Your task to perform on an android device: turn off priority inbox in the gmail app Image 0: 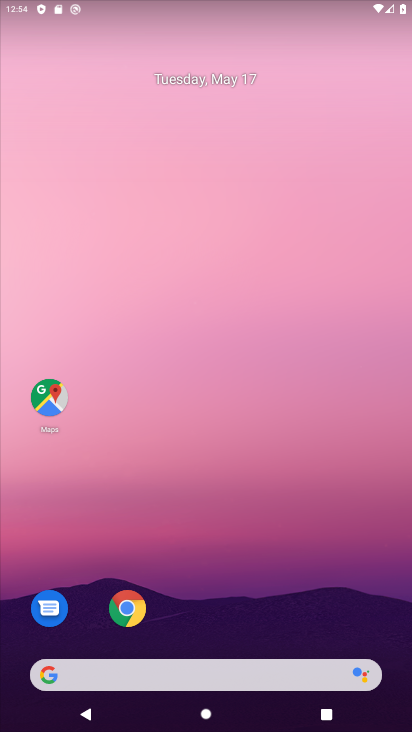
Step 0: drag from (180, 615) to (298, 5)
Your task to perform on an android device: turn off priority inbox in the gmail app Image 1: 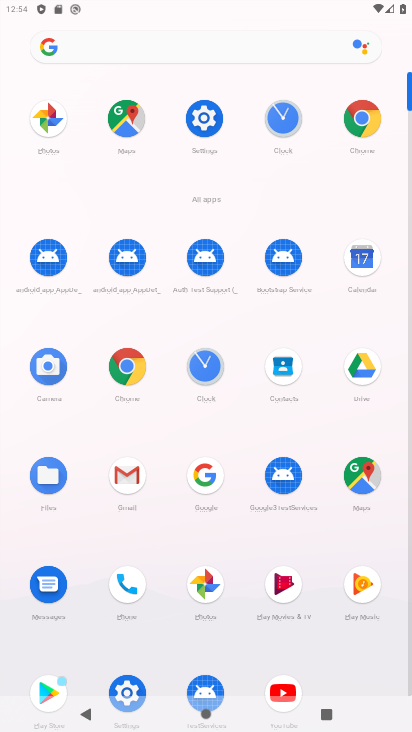
Step 1: click (125, 469)
Your task to perform on an android device: turn off priority inbox in the gmail app Image 2: 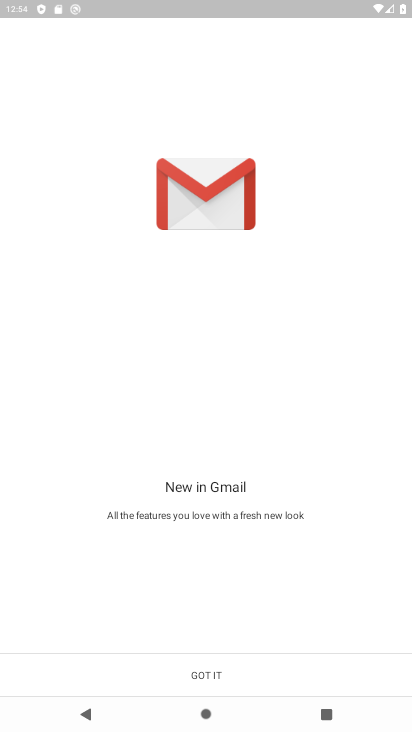
Step 2: click (226, 672)
Your task to perform on an android device: turn off priority inbox in the gmail app Image 3: 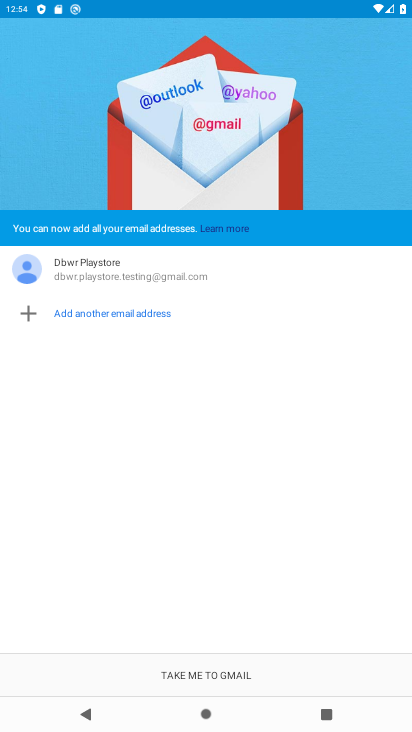
Step 3: click (226, 672)
Your task to perform on an android device: turn off priority inbox in the gmail app Image 4: 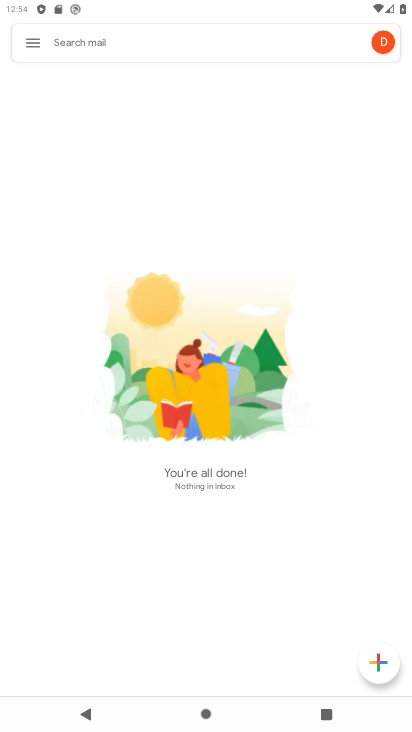
Step 4: click (32, 52)
Your task to perform on an android device: turn off priority inbox in the gmail app Image 5: 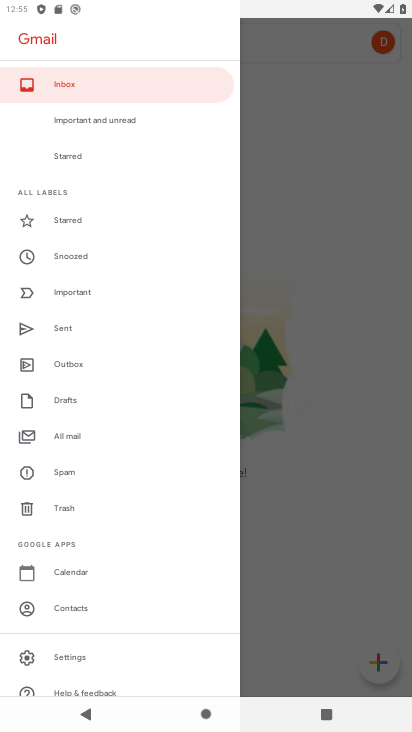
Step 5: click (91, 666)
Your task to perform on an android device: turn off priority inbox in the gmail app Image 6: 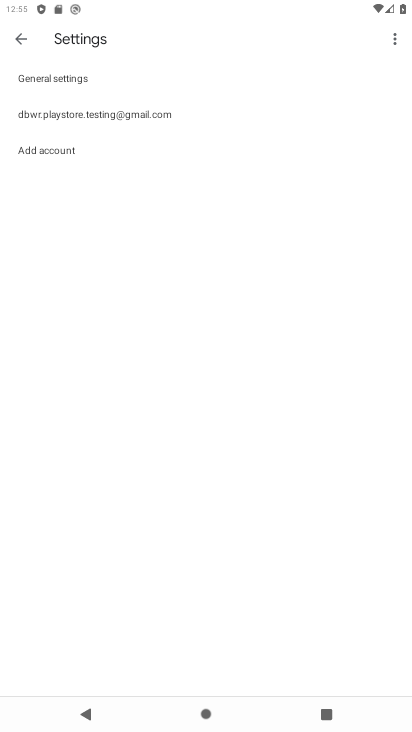
Step 6: click (169, 119)
Your task to perform on an android device: turn off priority inbox in the gmail app Image 7: 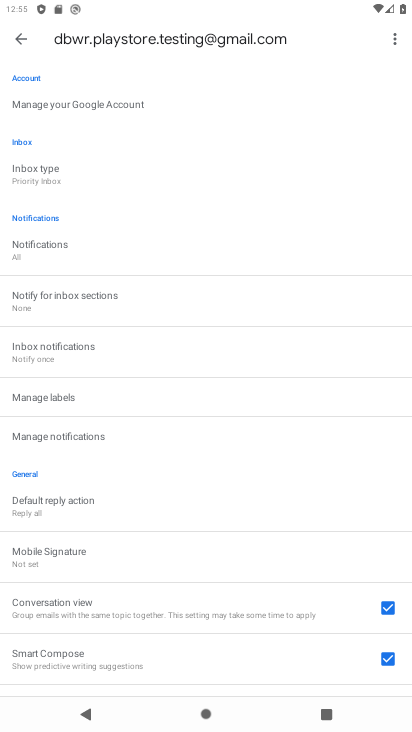
Step 7: click (109, 306)
Your task to perform on an android device: turn off priority inbox in the gmail app Image 8: 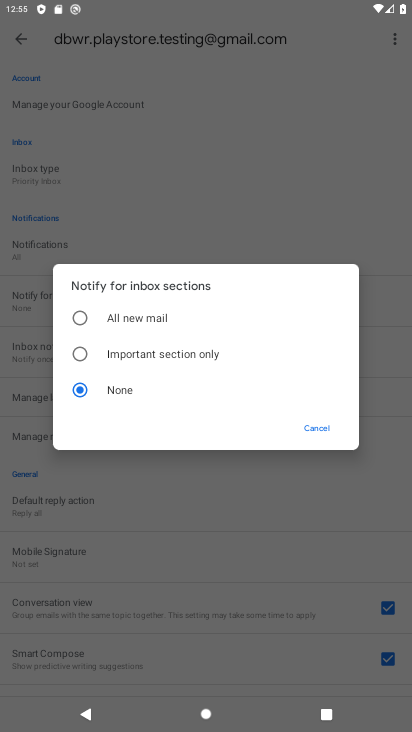
Step 8: click (319, 166)
Your task to perform on an android device: turn off priority inbox in the gmail app Image 9: 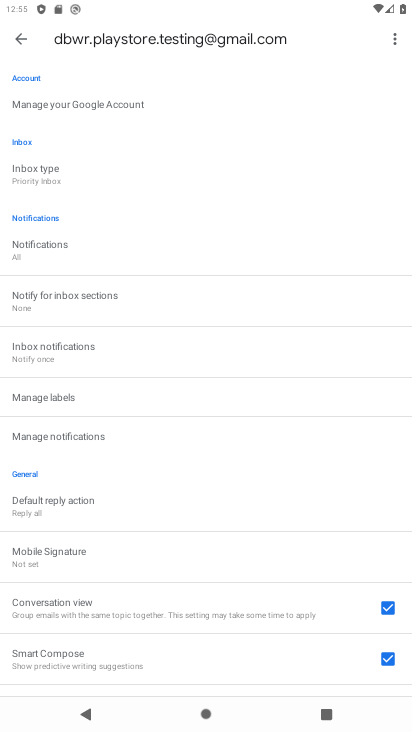
Step 9: click (148, 189)
Your task to perform on an android device: turn off priority inbox in the gmail app Image 10: 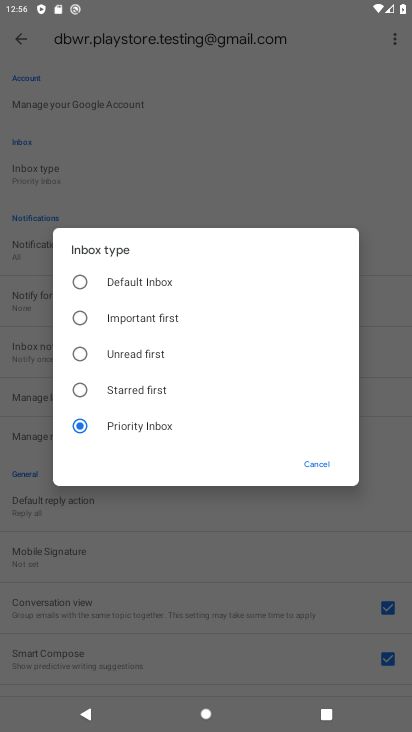
Step 10: click (116, 327)
Your task to perform on an android device: turn off priority inbox in the gmail app Image 11: 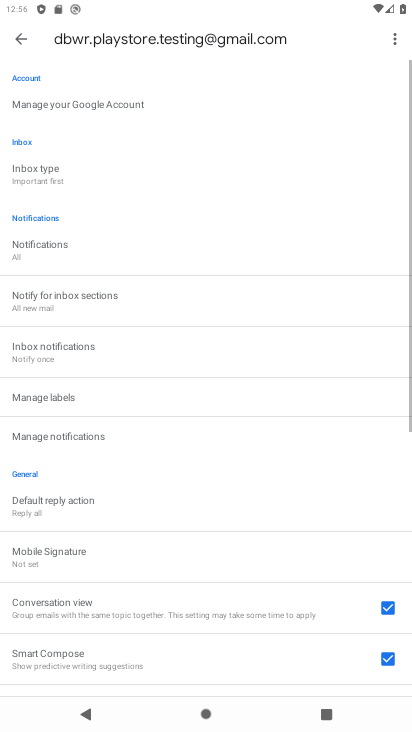
Step 11: click (116, 327)
Your task to perform on an android device: turn off priority inbox in the gmail app Image 12: 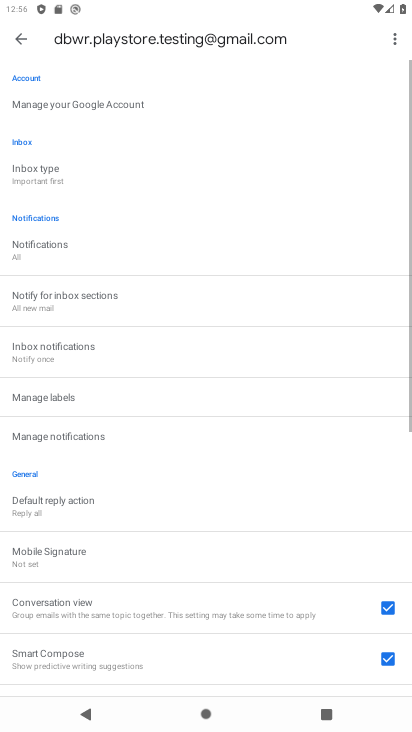
Step 12: click (116, 327)
Your task to perform on an android device: turn off priority inbox in the gmail app Image 13: 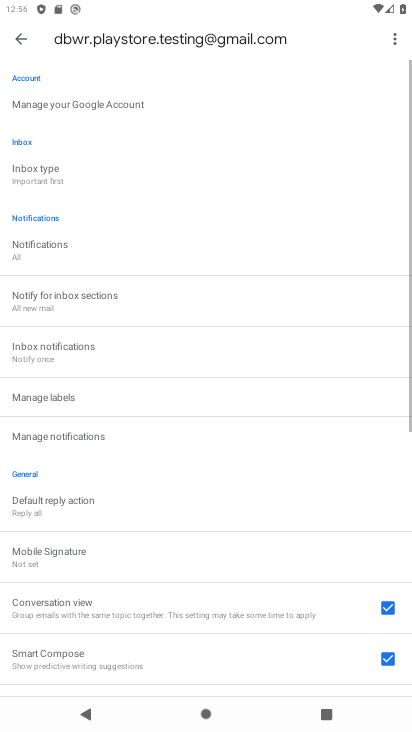
Step 13: click (116, 327)
Your task to perform on an android device: turn off priority inbox in the gmail app Image 14: 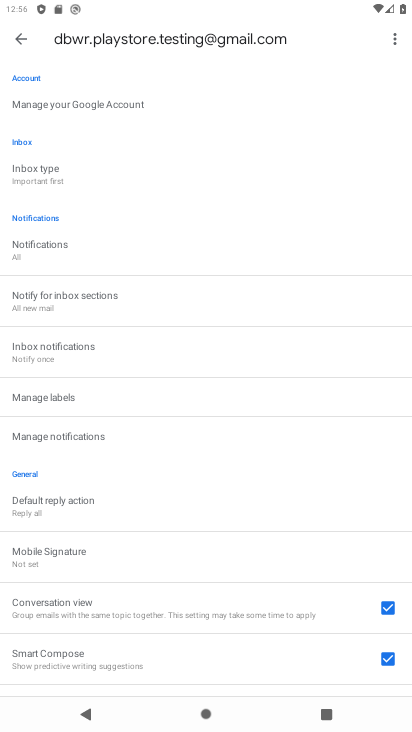
Step 14: task complete